Your task to perform on an android device: Open wifi settings Image 0: 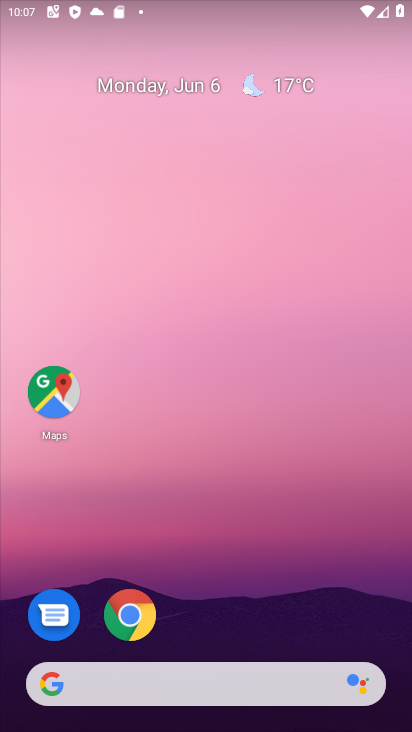
Step 0: drag from (49, 2) to (140, 464)
Your task to perform on an android device: Open wifi settings Image 1: 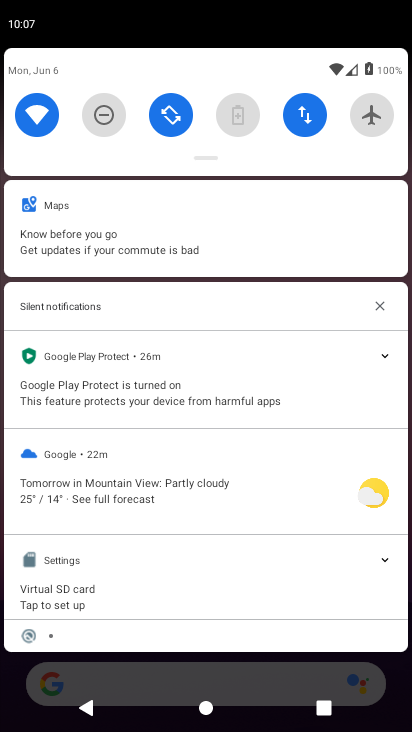
Step 1: click (26, 104)
Your task to perform on an android device: Open wifi settings Image 2: 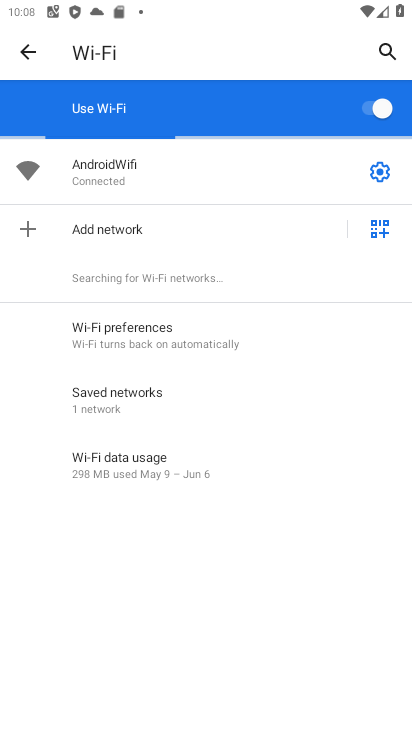
Step 2: task complete